Your task to perform on an android device: turn off notifications settings in the gmail app Image 0: 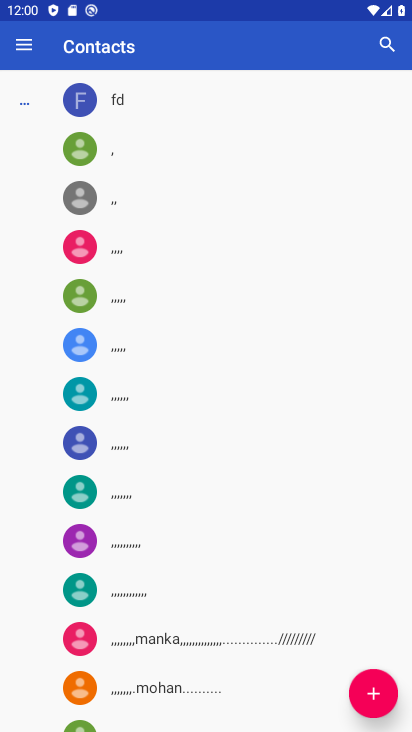
Step 0: press home button
Your task to perform on an android device: turn off notifications settings in the gmail app Image 1: 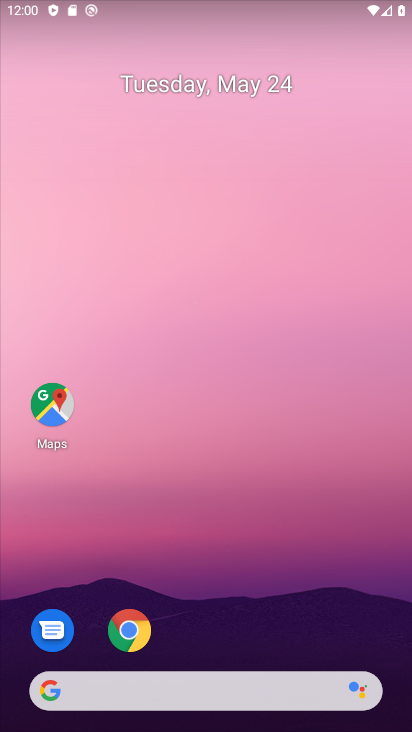
Step 1: click (265, 581)
Your task to perform on an android device: turn off notifications settings in the gmail app Image 2: 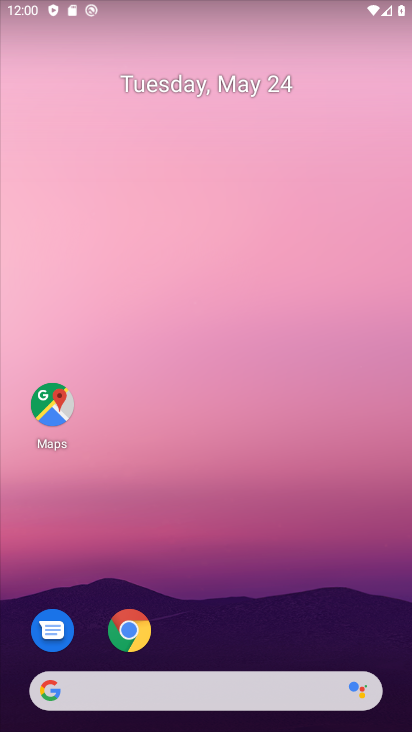
Step 2: drag from (265, 581) to (252, 95)
Your task to perform on an android device: turn off notifications settings in the gmail app Image 3: 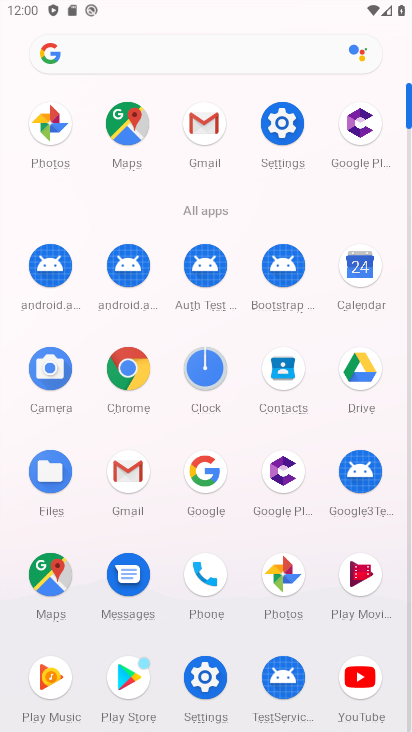
Step 3: click (126, 467)
Your task to perform on an android device: turn off notifications settings in the gmail app Image 4: 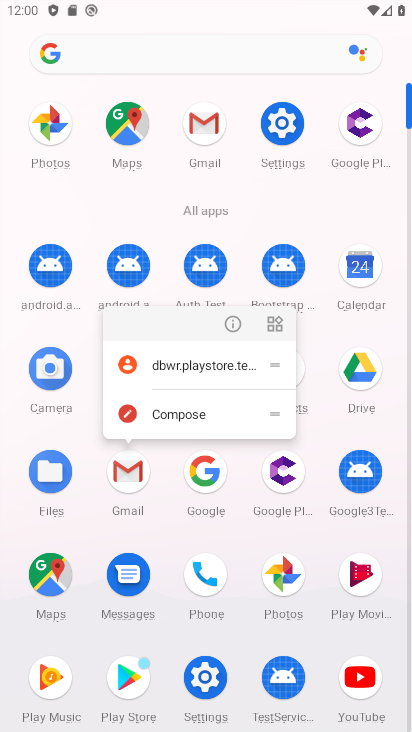
Step 4: click (228, 314)
Your task to perform on an android device: turn off notifications settings in the gmail app Image 5: 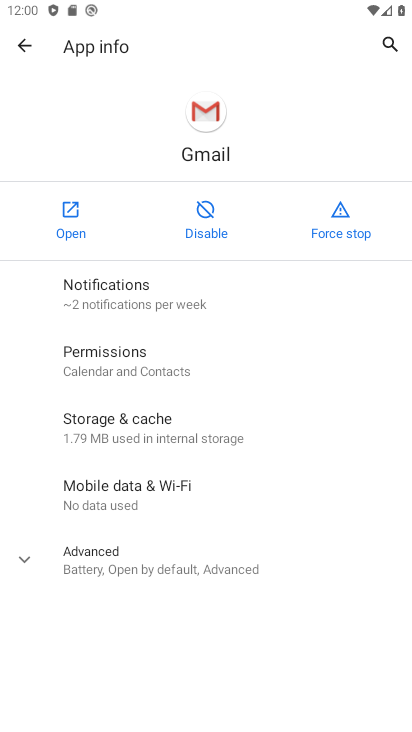
Step 5: click (197, 292)
Your task to perform on an android device: turn off notifications settings in the gmail app Image 6: 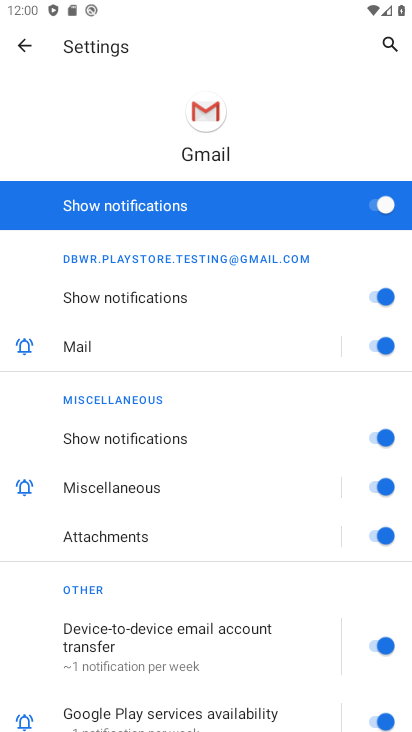
Step 6: click (394, 204)
Your task to perform on an android device: turn off notifications settings in the gmail app Image 7: 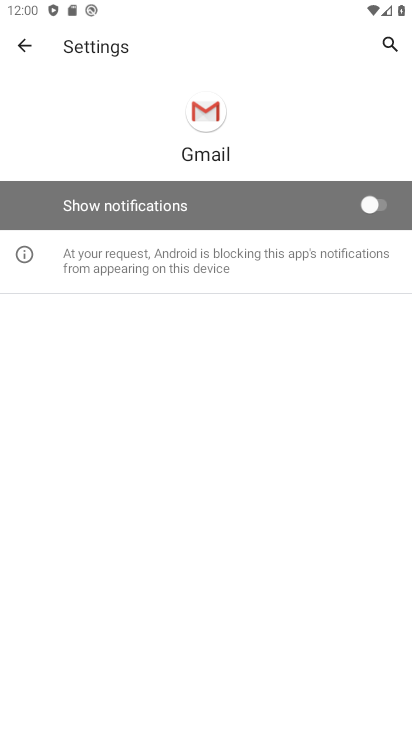
Step 7: task complete